Your task to perform on an android device: Open privacy settings Image 0: 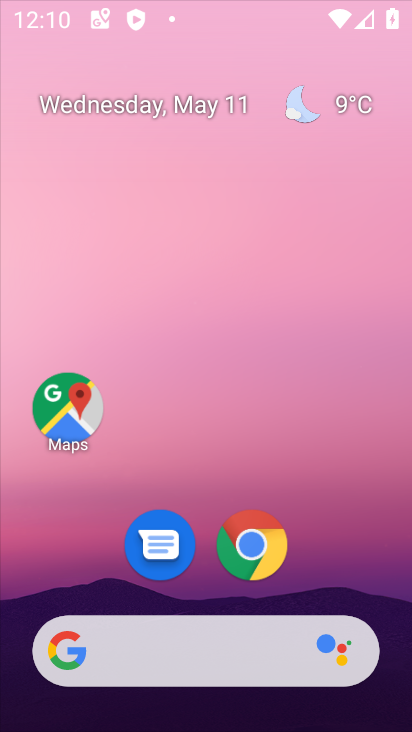
Step 0: click (298, 208)
Your task to perform on an android device: Open privacy settings Image 1: 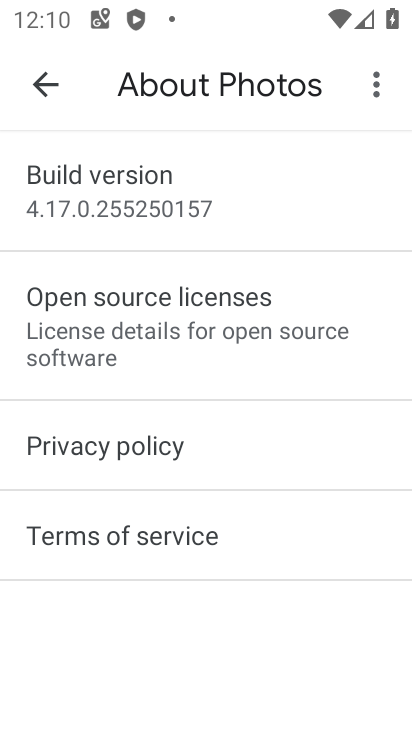
Step 1: press home button
Your task to perform on an android device: Open privacy settings Image 2: 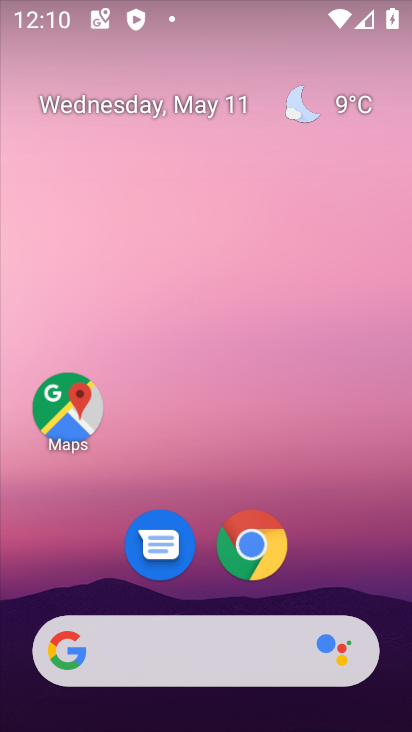
Step 2: drag from (365, 561) to (266, 200)
Your task to perform on an android device: Open privacy settings Image 3: 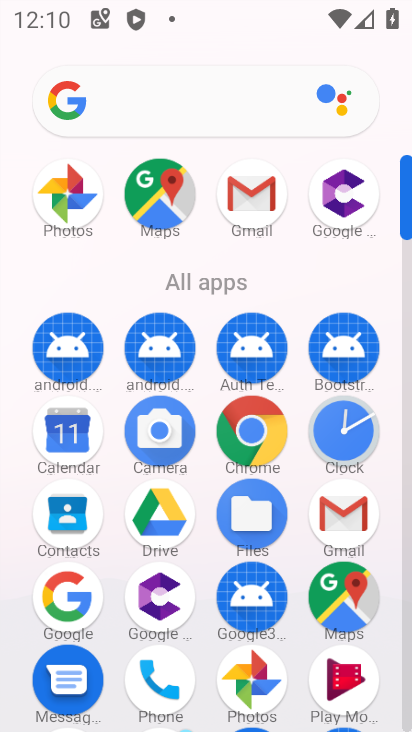
Step 3: click (400, 590)
Your task to perform on an android device: Open privacy settings Image 4: 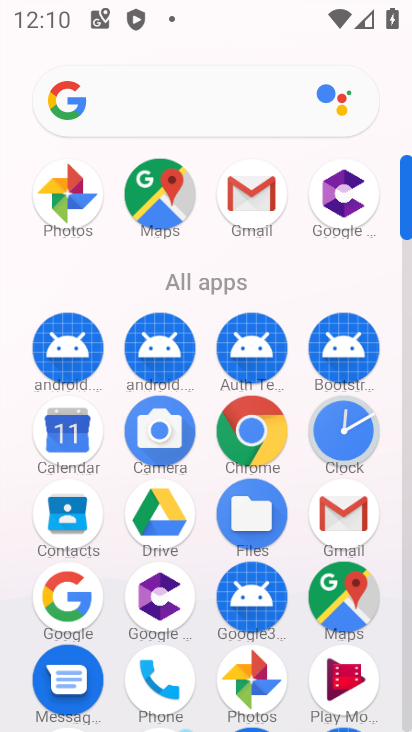
Step 4: click (406, 729)
Your task to perform on an android device: Open privacy settings Image 5: 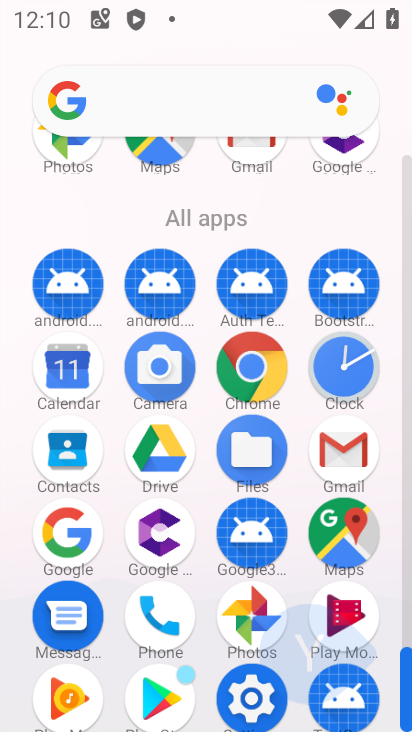
Step 5: click (406, 729)
Your task to perform on an android device: Open privacy settings Image 6: 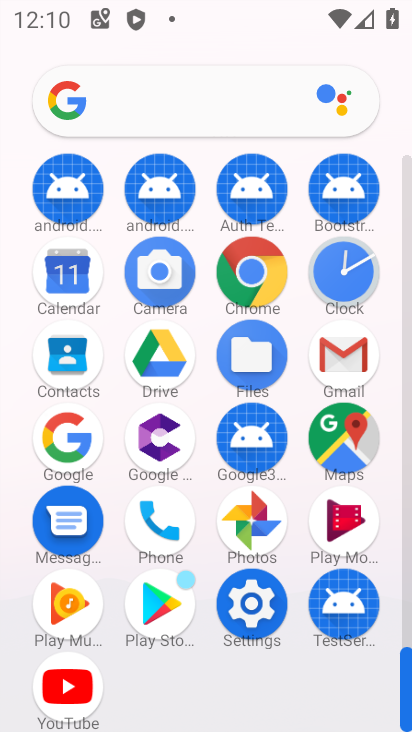
Step 6: click (272, 604)
Your task to perform on an android device: Open privacy settings Image 7: 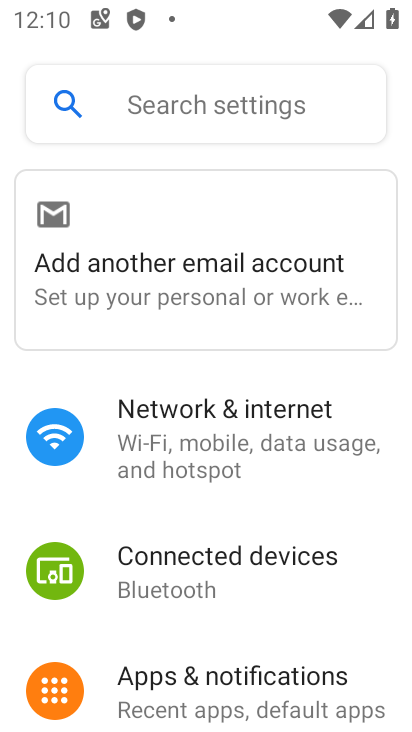
Step 7: drag from (193, 639) to (193, 27)
Your task to perform on an android device: Open privacy settings Image 8: 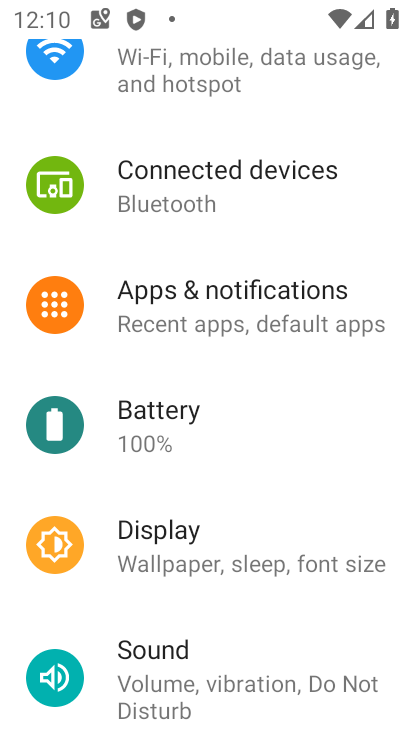
Step 8: drag from (197, 537) to (235, 50)
Your task to perform on an android device: Open privacy settings Image 9: 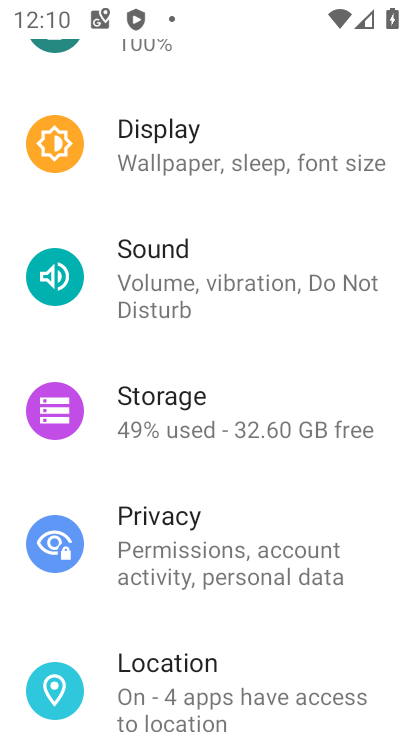
Step 9: click (143, 509)
Your task to perform on an android device: Open privacy settings Image 10: 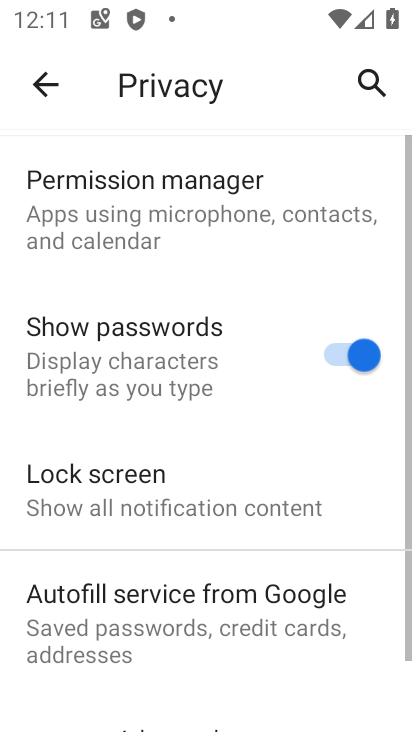
Step 10: task complete